Your task to perform on an android device: See recent photos Image 0: 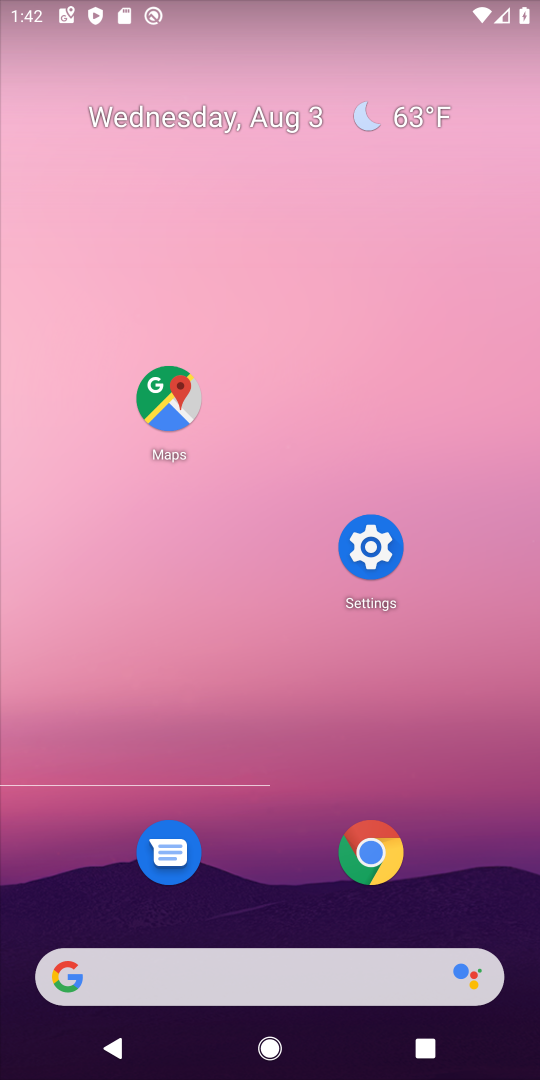
Step 0: drag from (236, 978) to (496, 127)
Your task to perform on an android device: See recent photos Image 1: 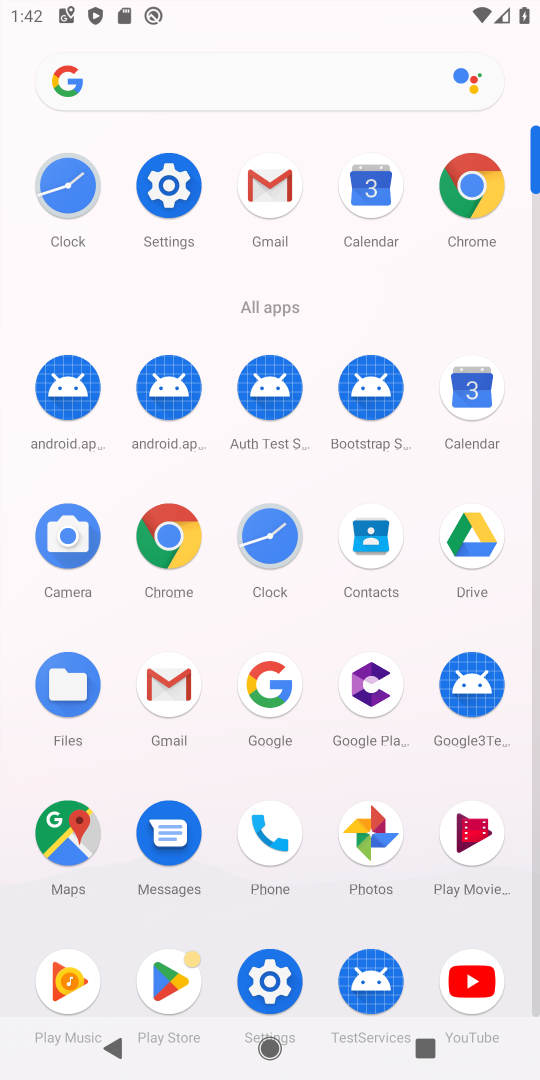
Step 1: click (373, 844)
Your task to perform on an android device: See recent photos Image 2: 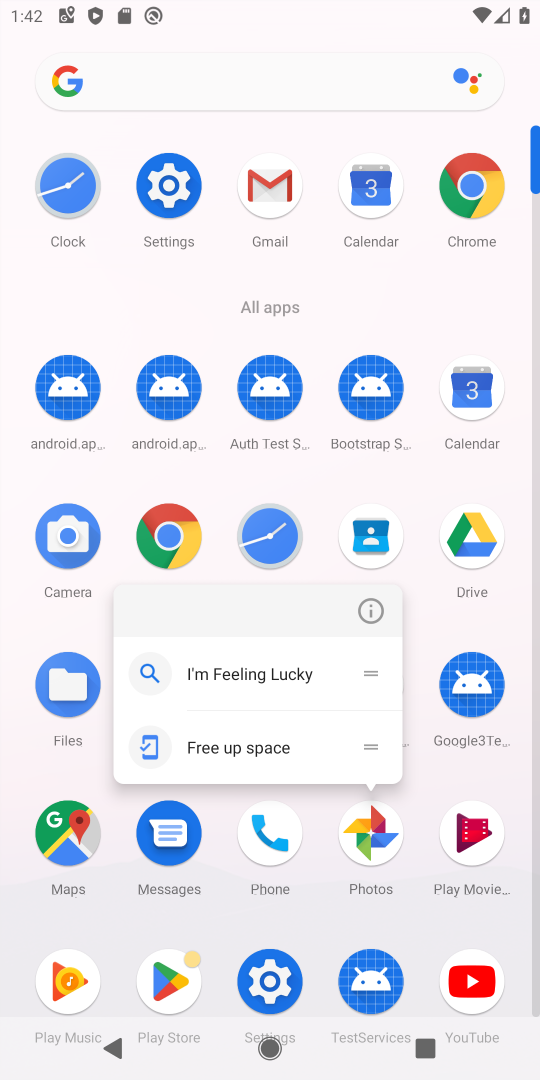
Step 2: click (373, 844)
Your task to perform on an android device: See recent photos Image 3: 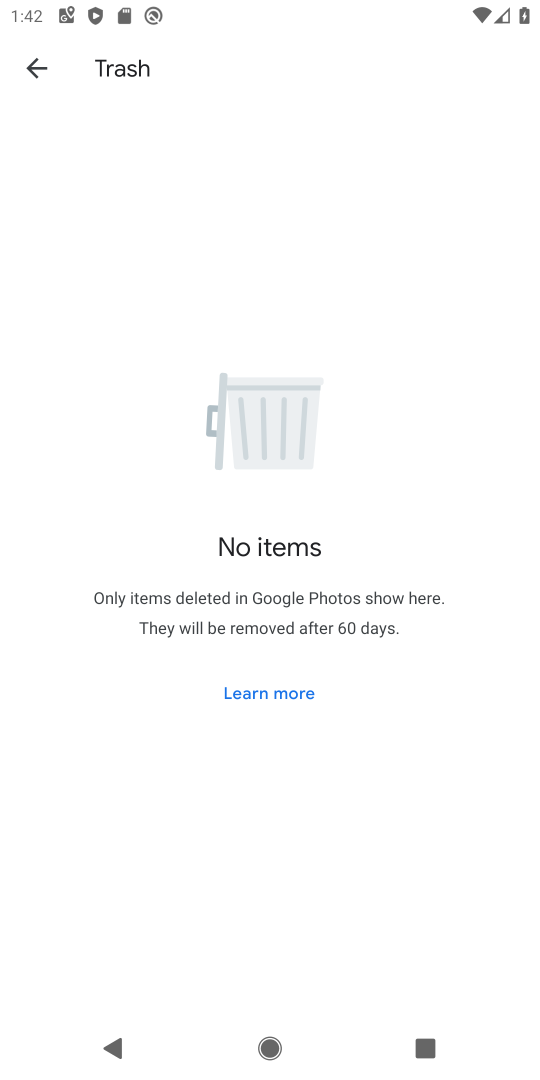
Step 3: click (38, 59)
Your task to perform on an android device: See recent photos Image 4: 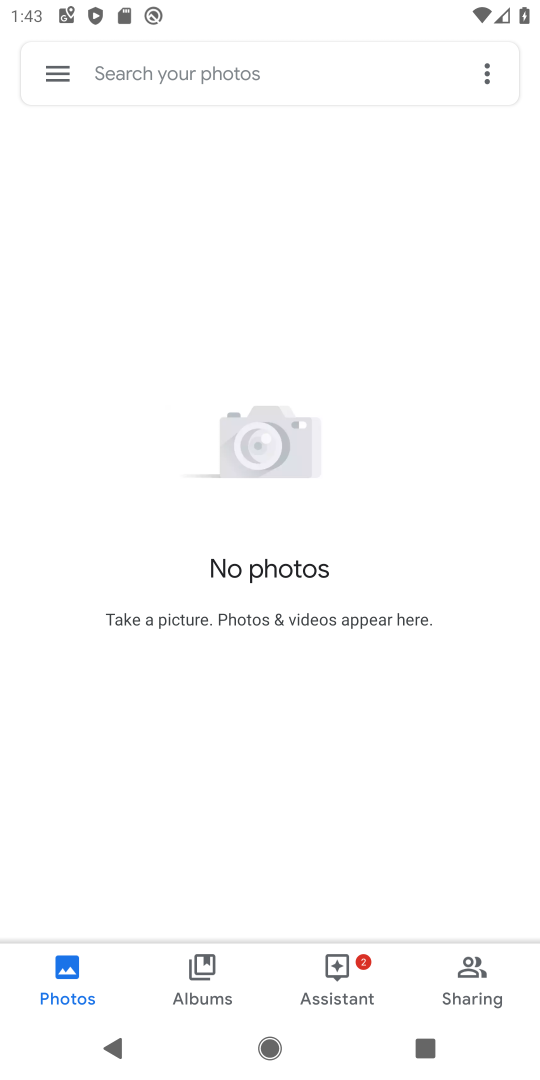
Step 4: task complete